Your task to perform on an android device: Open Chrome and go to settings Image 0: 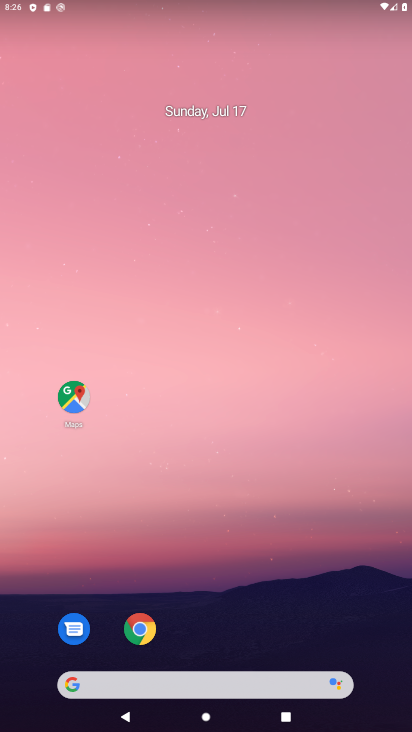
Step 0: drag from (215, 640) to (225, 96)
Your task to perform on an android device: Open Chrome and go to settings Image 1: 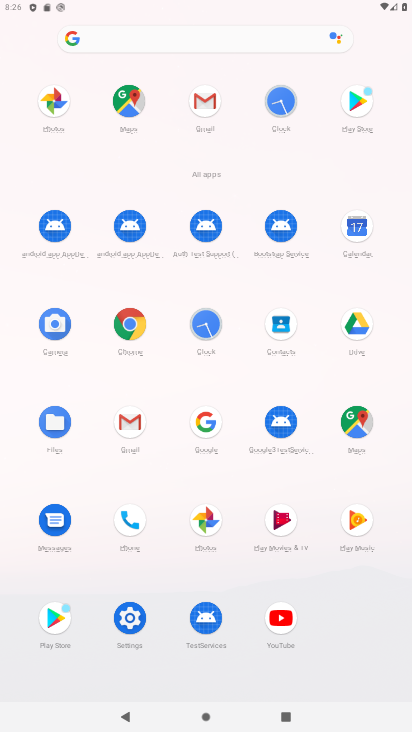
Step 1: click (135, 325)
Your task to perform on an android device: Open Chrome and go to settings Image 2: 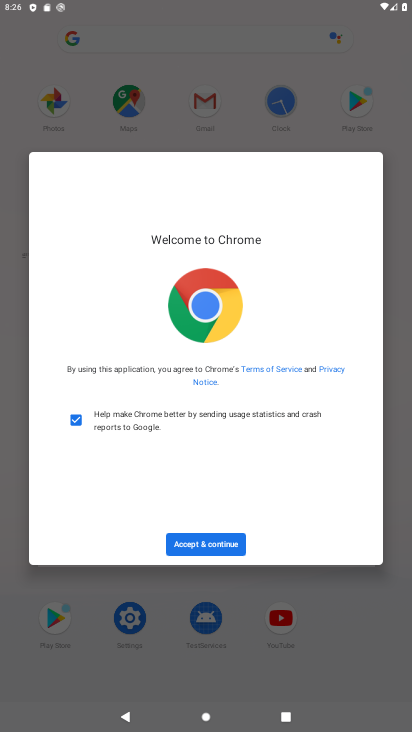
Step 2: click (203, 541)
Your task to perform on an android device: Open Chrome and go to settings Image 3: 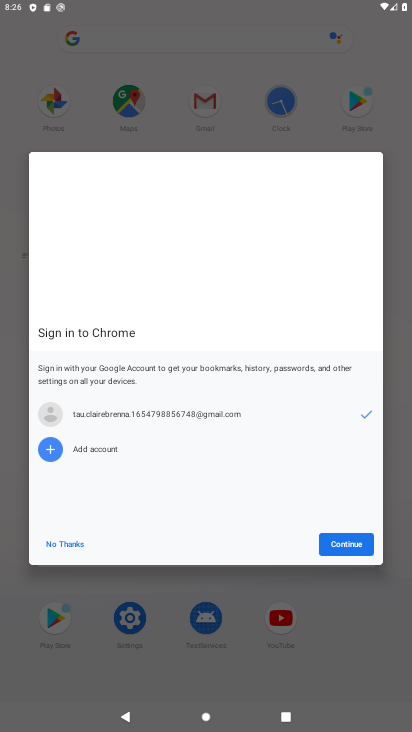
Step 3: click (356, 547)
Your task to perform on an android device: Open Chrome and go to settings Image 4: 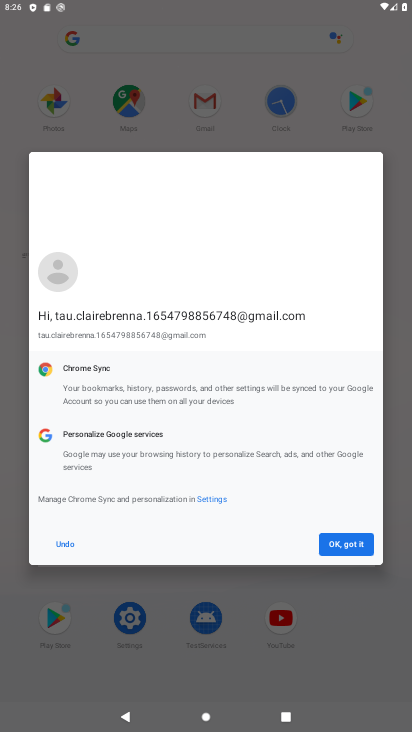
Step 4: click (343, 539)
Your task to perform on an android device: Open Chrome and go to settings Image 5: 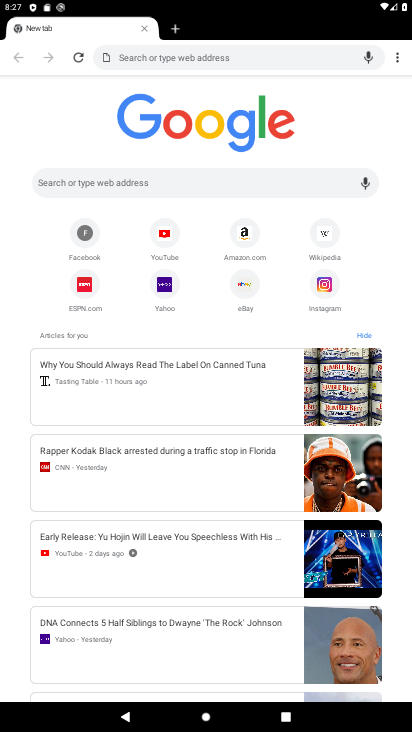
Step 5: click (398, 56)
Your task to perform on an android device: Open Chrome and go to settings Image 6: 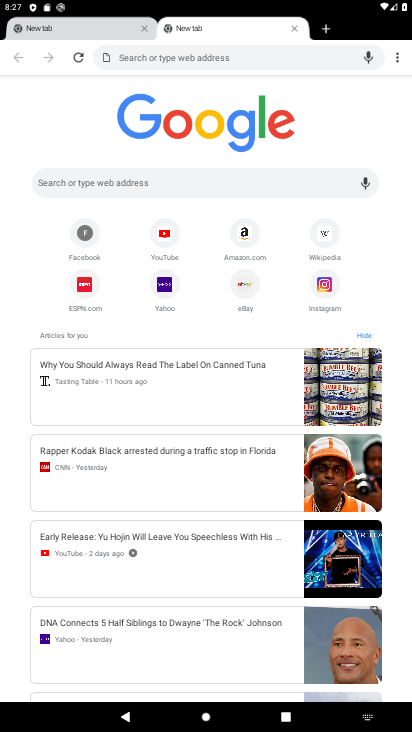
Step 6: click (399, 54)
Your task to perform on an android device: Open Chrome and go to settings Image 7: 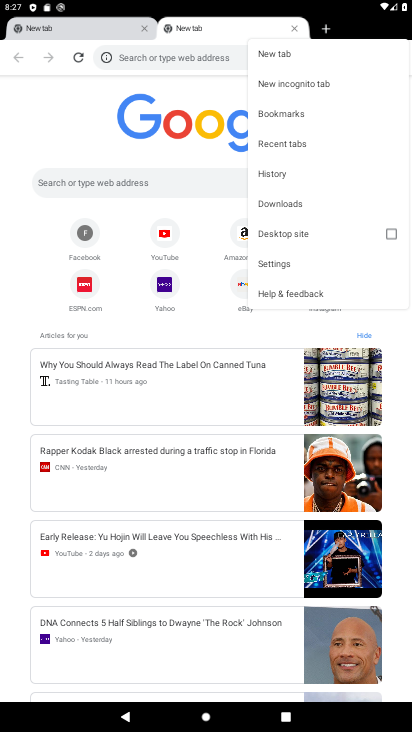
Step 7: click (276, 260)
Your task to perform on an android device: Open Chrome and go to settings Image 8: 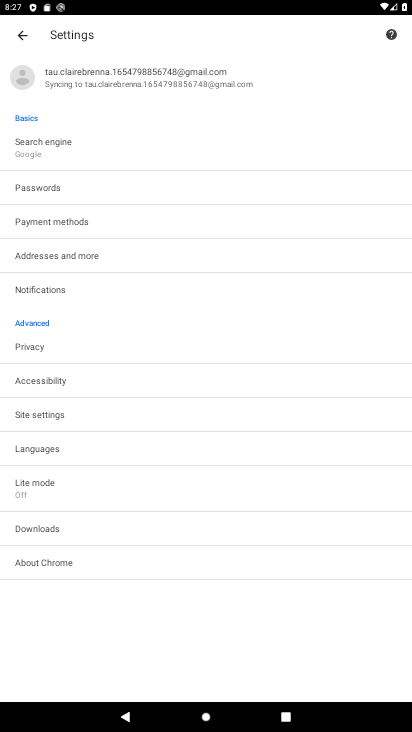
Step 8: task complete